Your task to perform on an android device: refresh tabs in the chrome app Image 0: 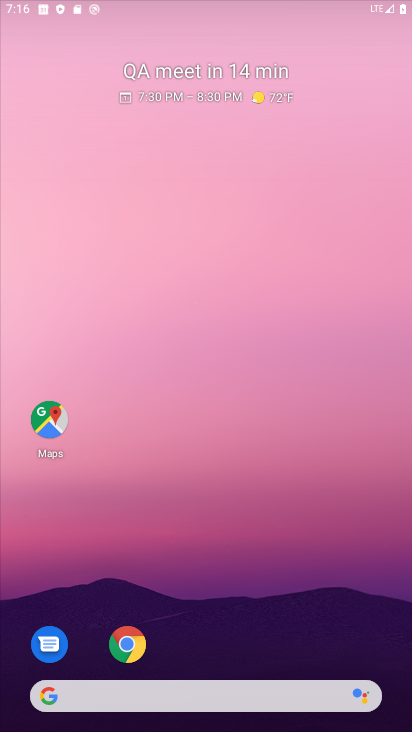
Step 0: drag from (268, 720) to (272, 245)
Your task to perform on an android device: refresh tabs in the chrome app Image 1: 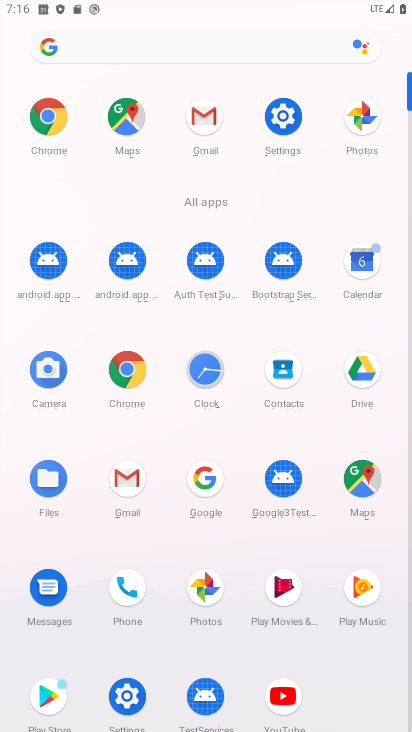
Step 1: click (135, 376)
Your task to perform on an android device: refresh tabs in the chrome app Image 2: 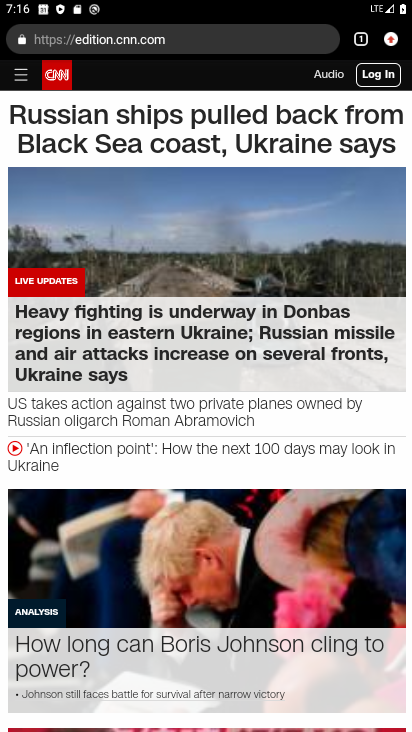
Step 2: click (393, 47)
Your task to perform on an android device: refresh tabs in the chrome app Image 3: 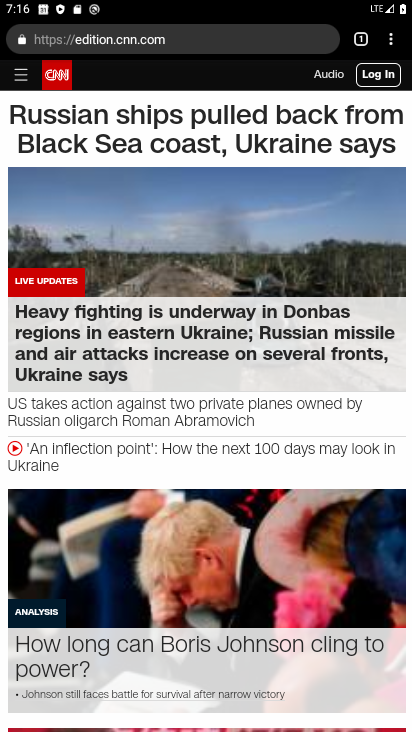
Step 3: click (396, 36)
Your task to perform on an android device: refresh tabs in the chrome app Image 4: 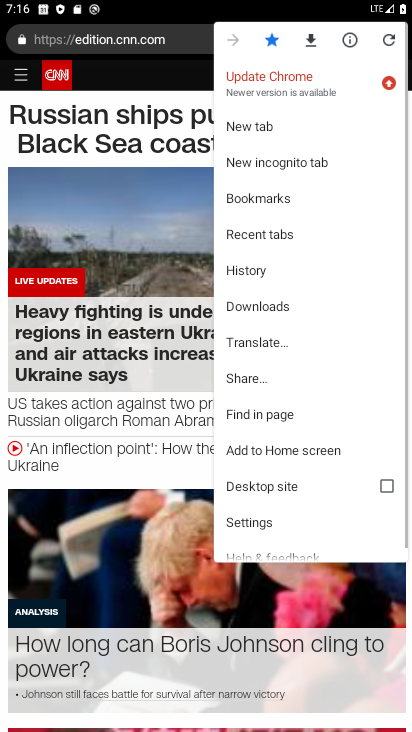
Step 4: click (396, 36)
Your task to perform on an android device: refresh tabs in the chrome app Image 5: 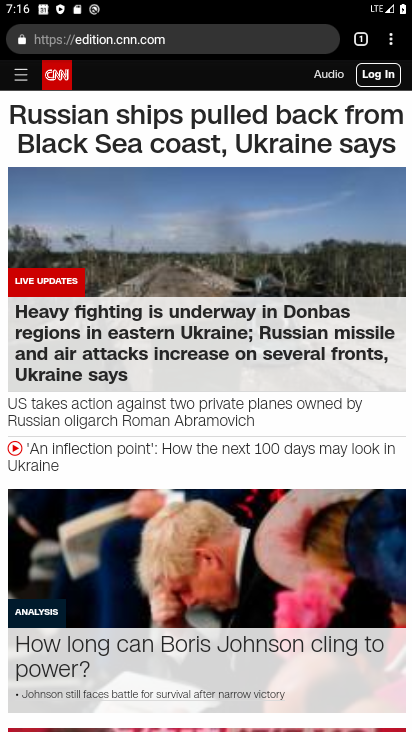
Step 5: task complete